Your task to perform on an android device: Open settings on Google Maps Image 0: 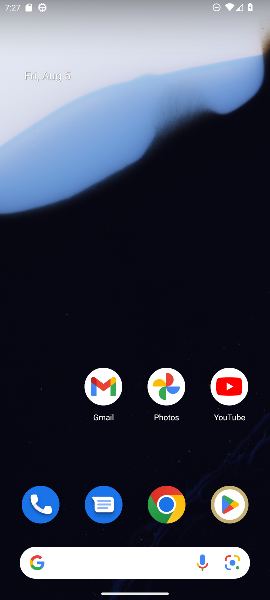
Step 0: drag from (156, 555) to (122, 26)
Your task to perform on an android device: Open settings on Google Maps Image 1: 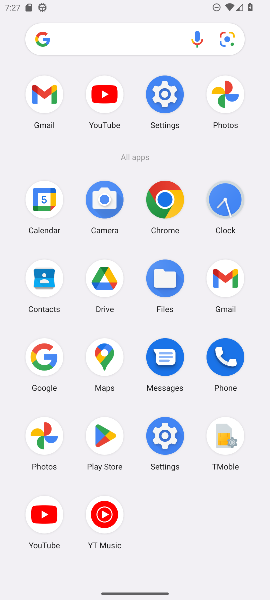
Step 1: click (118, 371)
Your task to perform on an android device: Open settings on Google Maps Image 2: 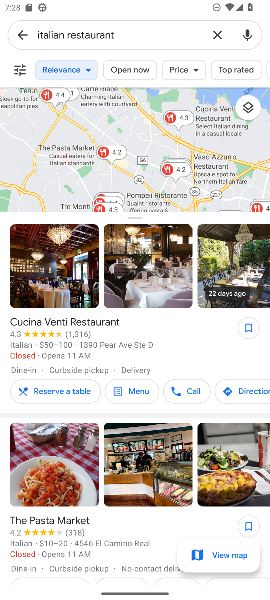
Step 2: click (25, 35)
Your task to perform on an android device: Open settings on Google Maps Image 3: 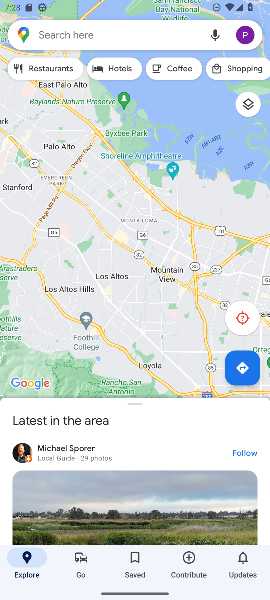
Step 3: click (237, 33)
Your task to perform on an android device: Open settings on Google Maps Image 4: 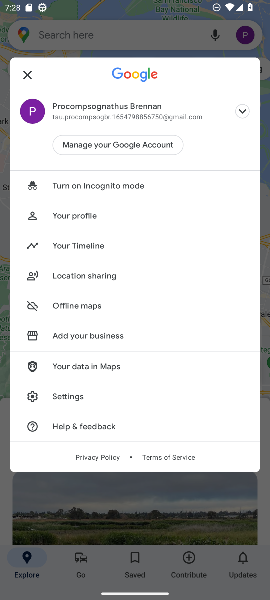
Step 4: click (90, 396)
Your task to perform on an android device: Open settings on Google Maps Image 5: 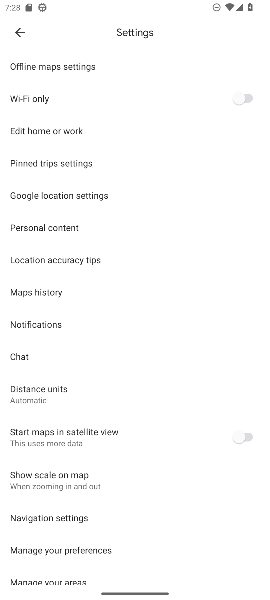
Step 5: task complete